Your task to perform on an android device: Go to privacy settings Image 0: 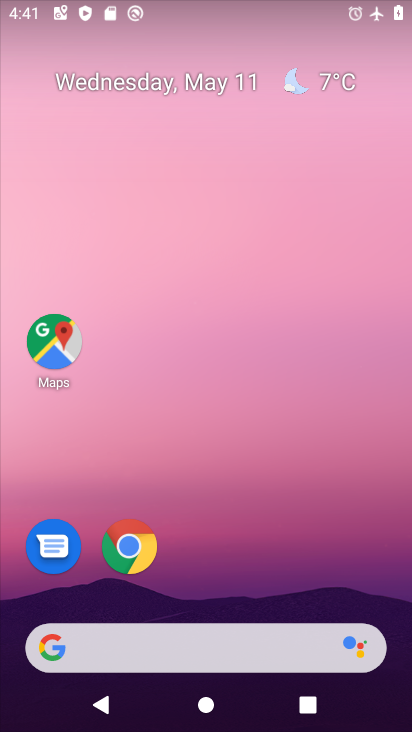
Step 0: drag from (260, 613) to (321, 2)
Your task to perform on an android device: Go to privacy settings Image 1: 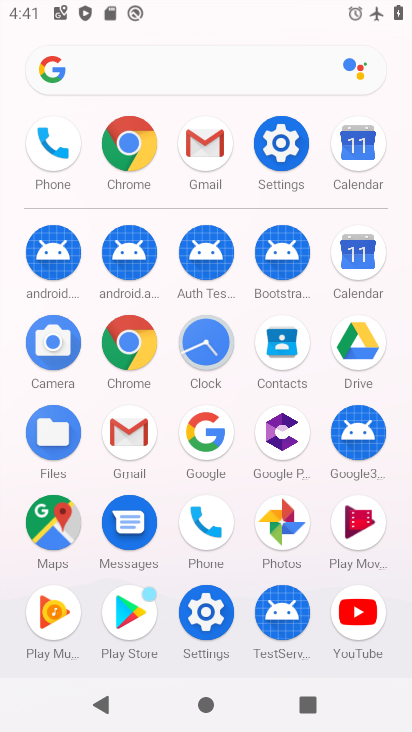
Step 1: click (283, 157)
Your task to perform on an android device: Go to privacy settings Image 2: 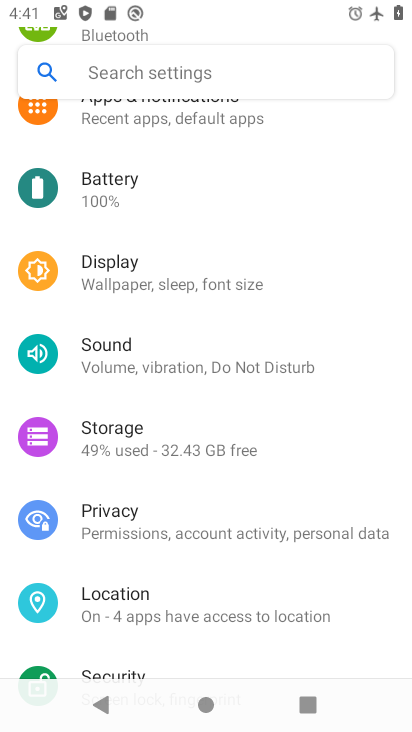
Step 2: click (178, 518)
Your task to perform on an android device: Go to privacy settings Image 3: 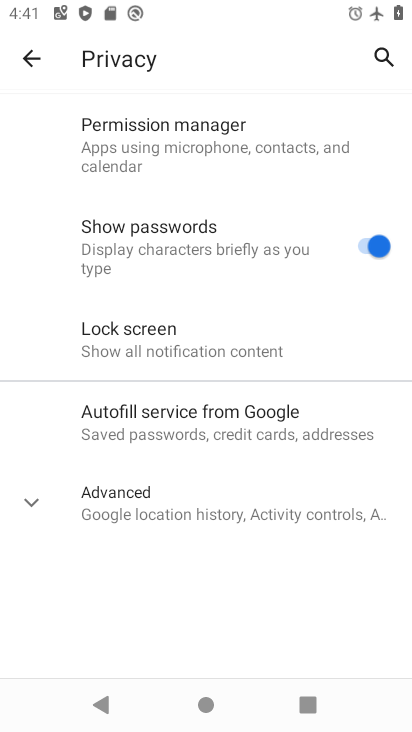
Step 3: task complete